Your task to perform on an android device: Go to ESPN.com Image 0: 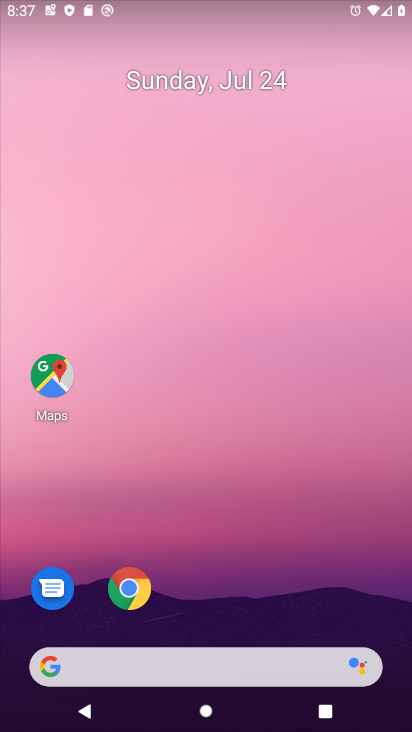
Step 0: drag from (349, 538) to (204, 101)
Your task to perform on an android device: Go to ESPN.com Image 1: 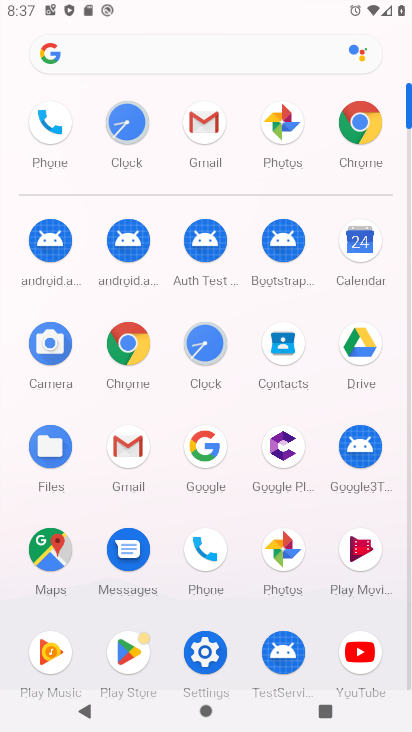
Step 1: click (361, 134)
Your task to perform on an android device: Go to ESPN.com Image 2: 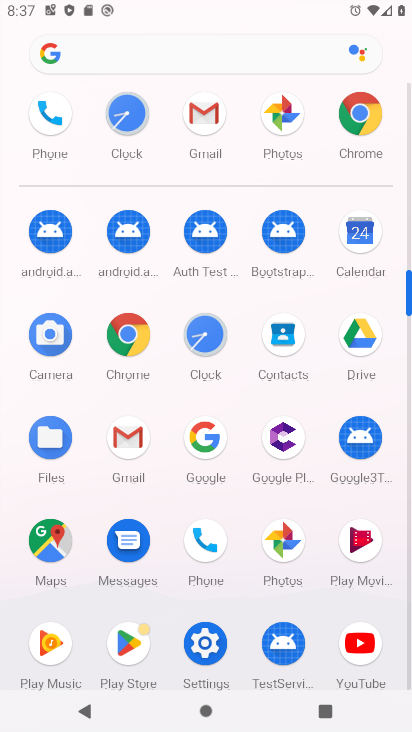
Step 2: click (357, 116)
Your task to perform on an android device: Go to ESPN.com Image 3: 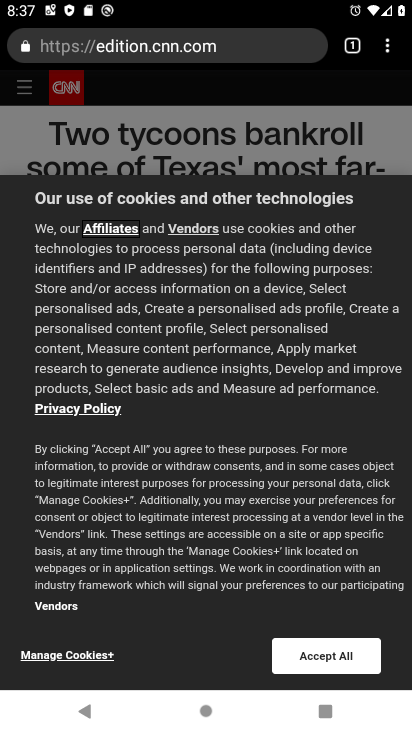
Step 3: click (229, 46)
Your task to perform on an android device: Go to ESPN.com Image 4: 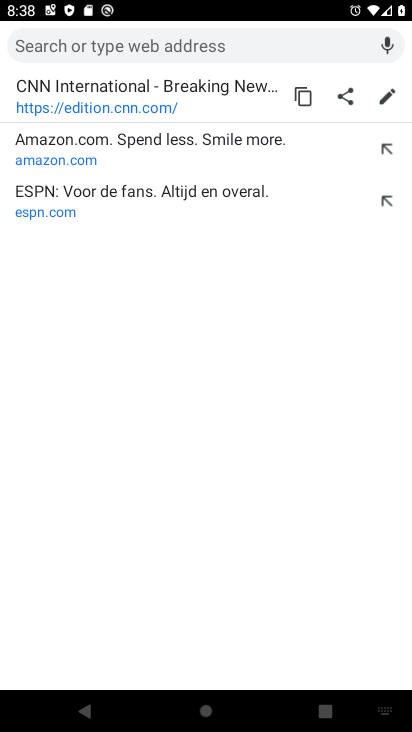
Step 4: type "ESPN.com"
Your task to perform on an android device: Go to ESPN.com Image 5: 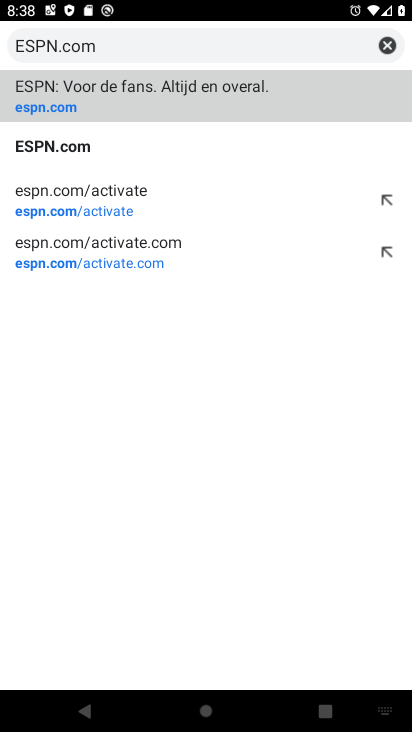
Step 5: click (77, 161)
Your task to perform on an android device: Go to ESPN.com Image 6: 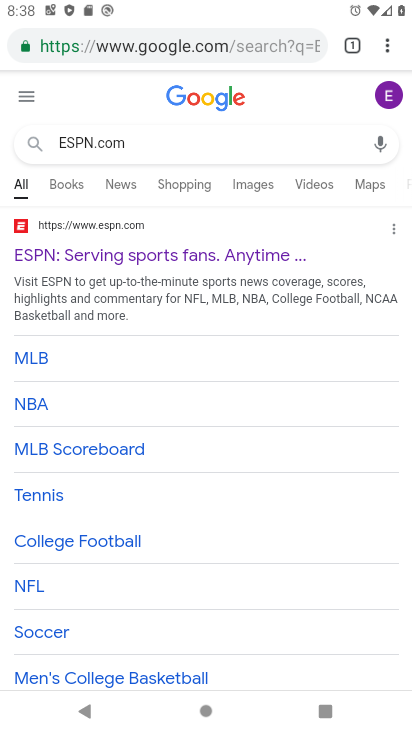
Step 6: click (89, 258)
Your task to perform on an android device: Go to ESPN.com Image 7: 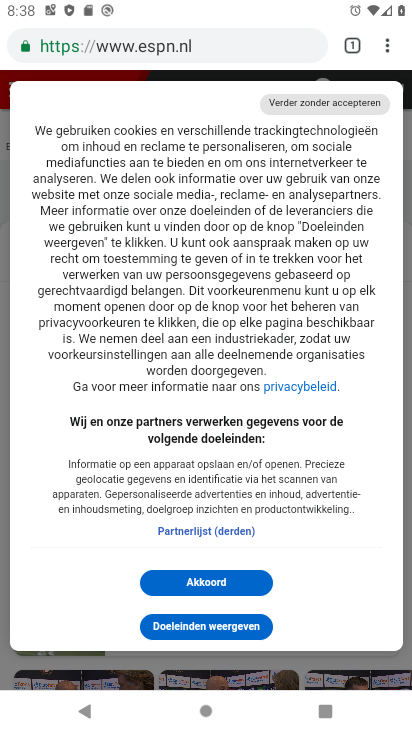
Step 7: task complete